Your task to perform on an android device: add a contact in the contacts app Image 0: 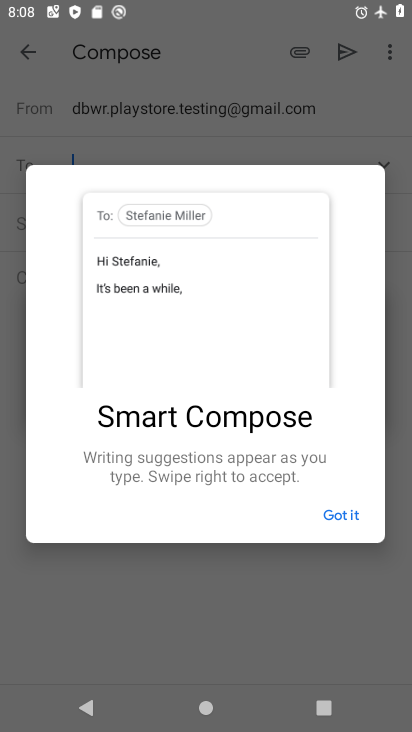
Step 0: press home button
Your task to perform on an android device: add a contact in the contacts app Image 1: 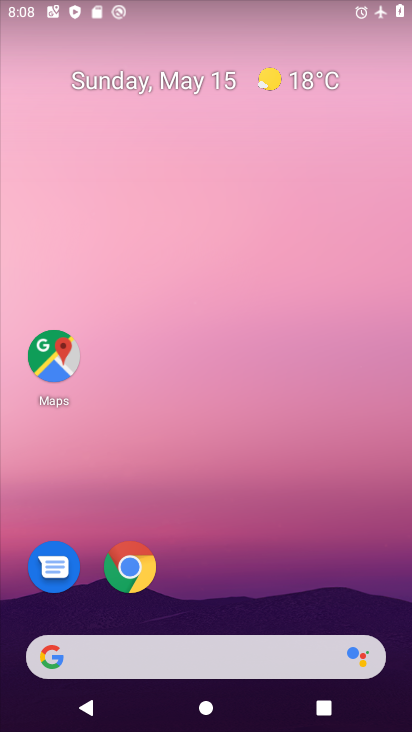
Step 1: drag from (277, 698) to (361, 19)
Your task to perform on an android device: add a contact in the contacts app Image 2: 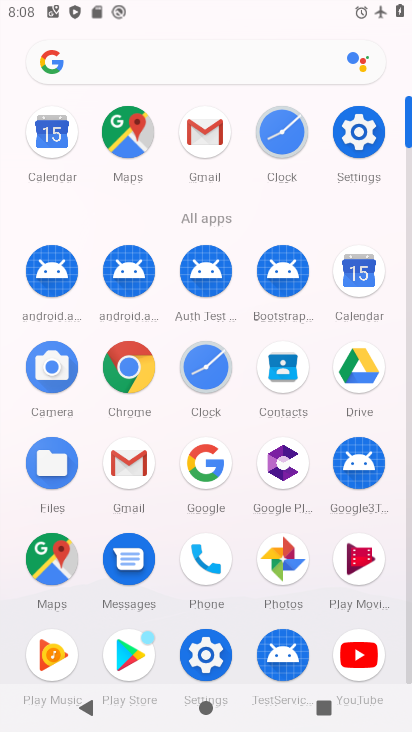
Step 2: click (286, 374)
Your task to perform on an android device: add a contact in the contacts app Image 3: 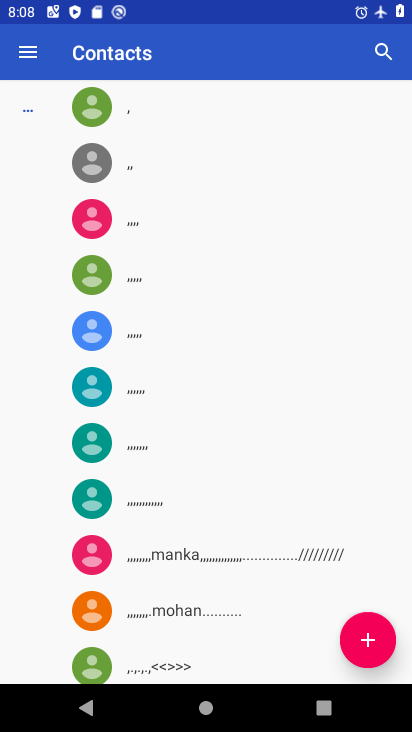
Step 3: click (375, 638)
Your task to perform on an android device: add a contact in the contacts app Image 4: 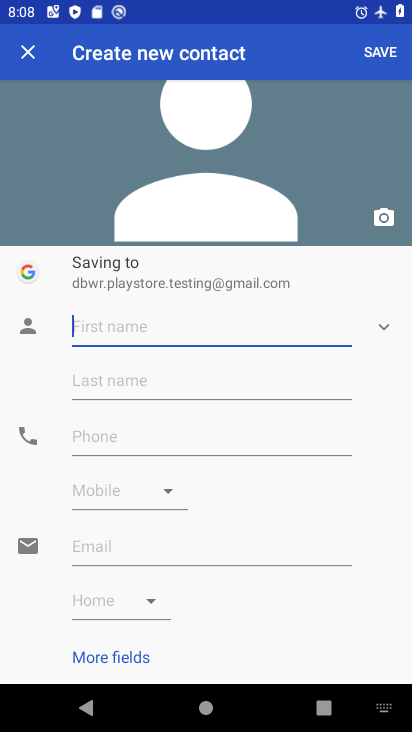
Step 4: type "kjgi"
Your task to perform on an android device: add a contact in the contacts app Image 5: 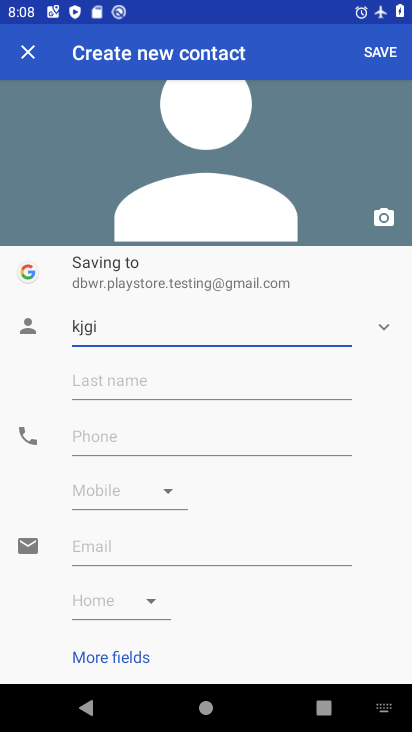
Step 5: click (252, 439)
Your task to perform on an android device: add a contact in the contacts app Image 6: 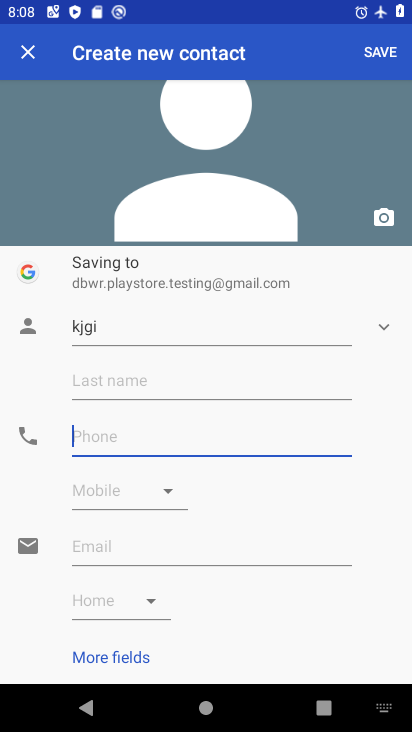
Step 6: type "896"
Your task to perform on an android device: add a contact in the contacts app Image 7: 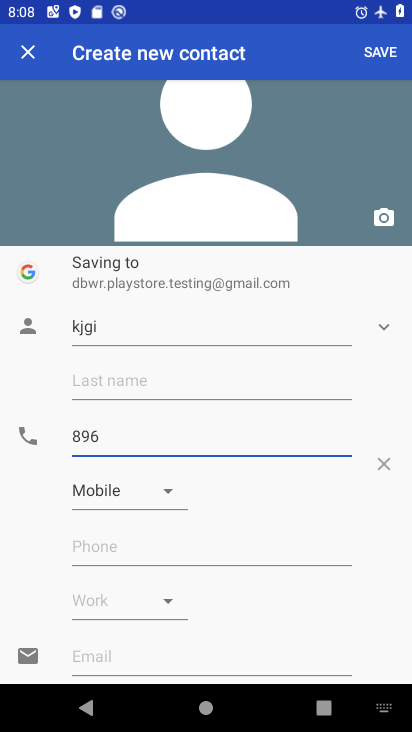
Step 7: click (380, 51)
Your task to perform on an android device: add a contact in the contacts app Image 8: 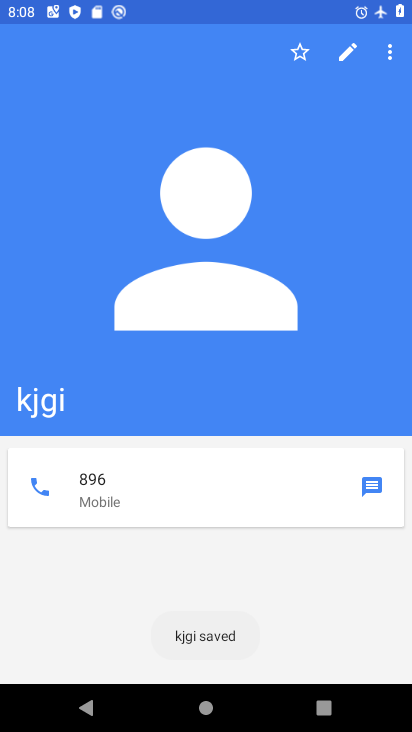
Step 8: task complete